Your task to perform on an android device: uninstall "Truecaller" Image 0: 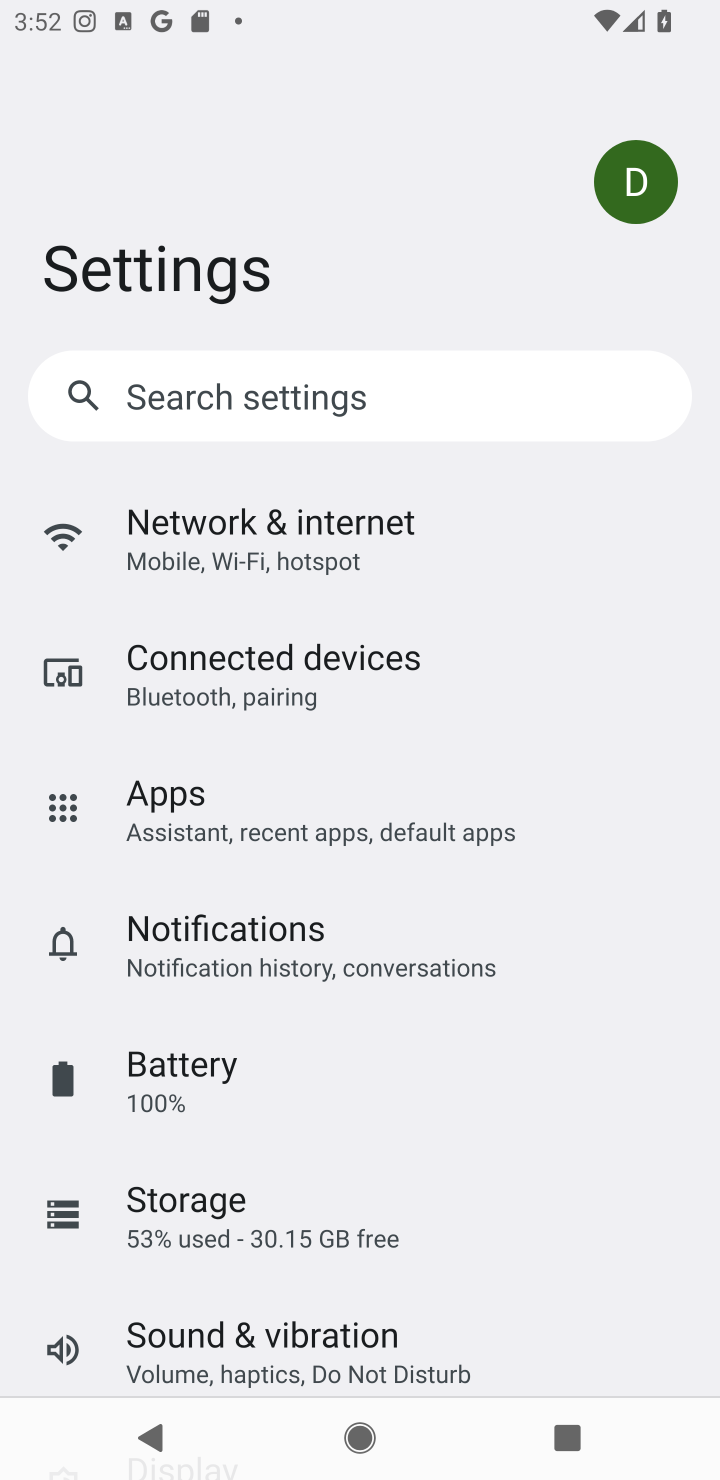
Step 0: press home button
Your task to perform on an android device: uninstall "Truecaller" Image 1: 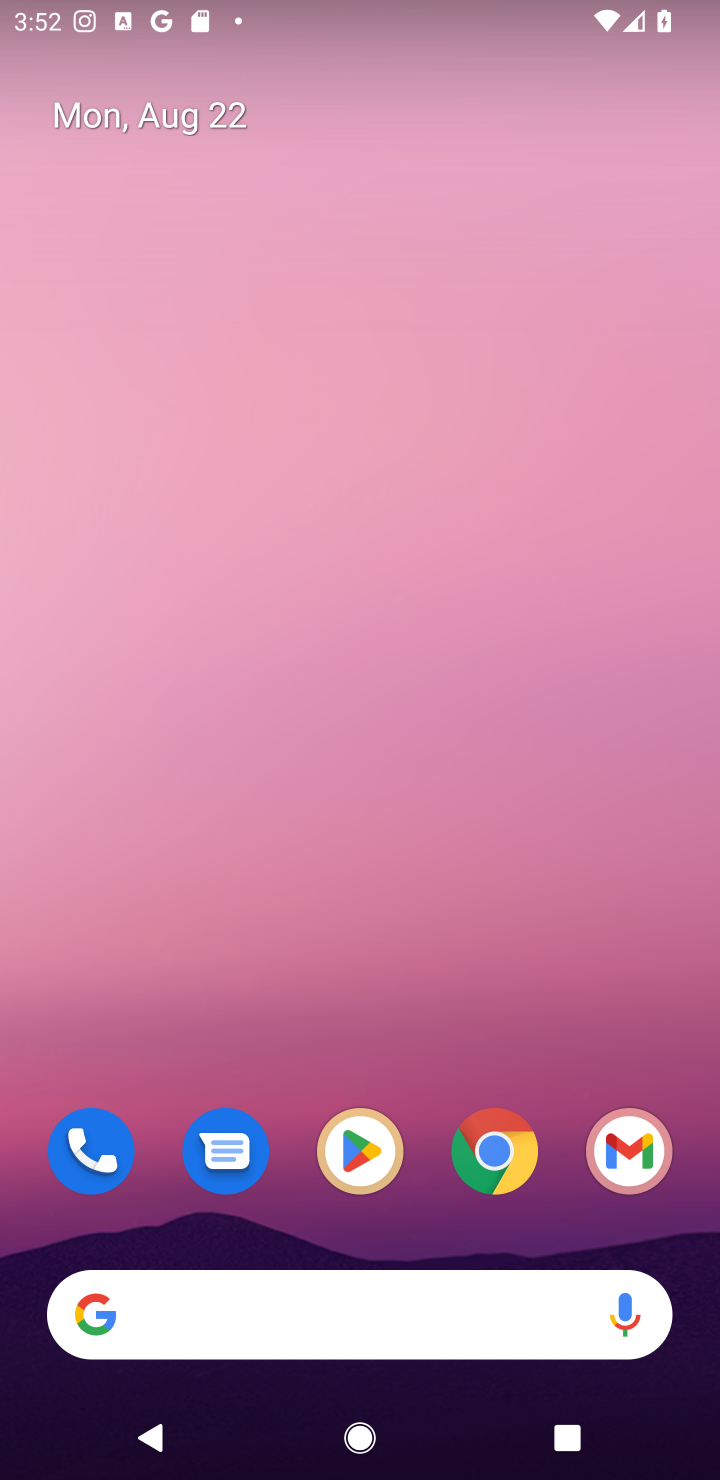
Step 1: click (368, 1150)
Your task to perform on an android device: uninstall "Truecaller" Image 2: 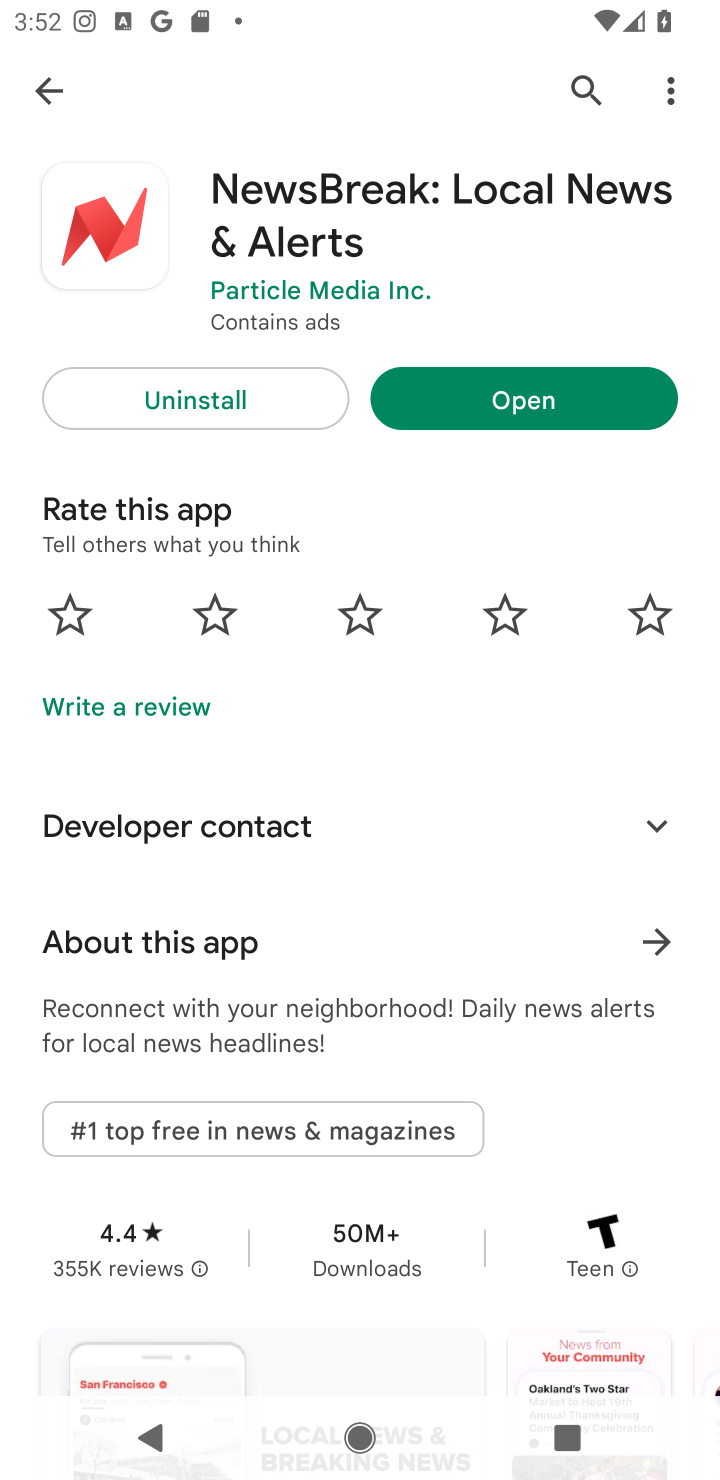
Step 2: click (458, 797)
Your task to perform on an android device: uninstall "Truecaller" Image 3: 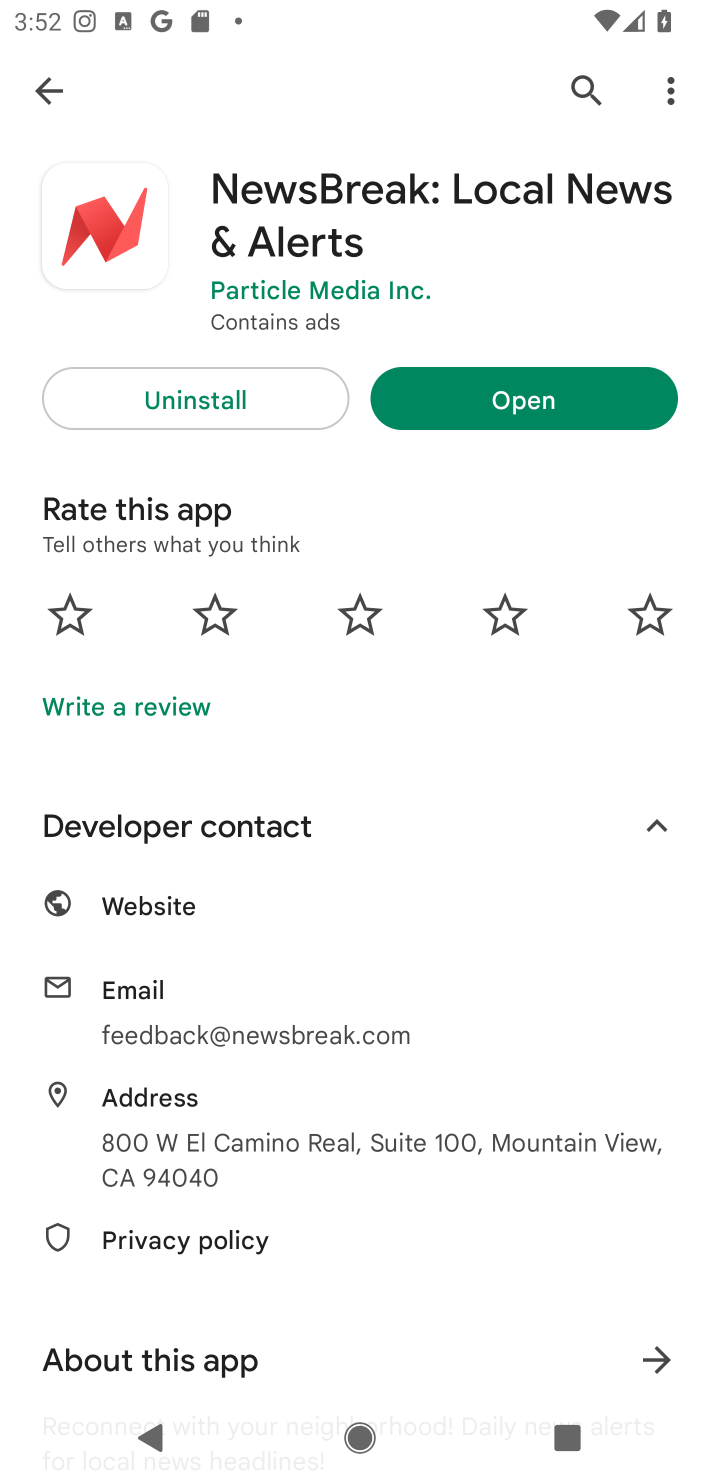
Step 3: press back button
Your task to perform on an android device: uninstall "Truecaller" Image 4: 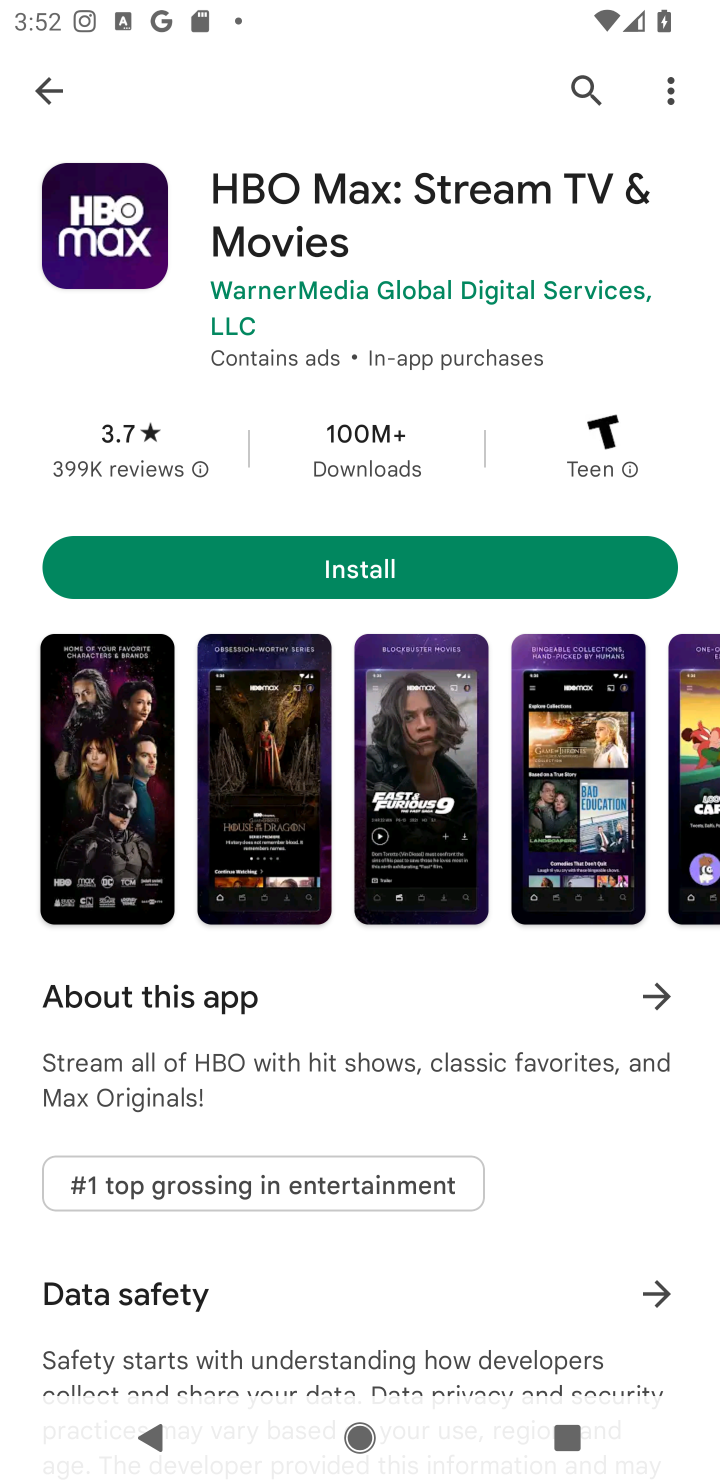
Step 4: press back button
Your task to perform on an android device: uninstall "Truecaller" Image 5: 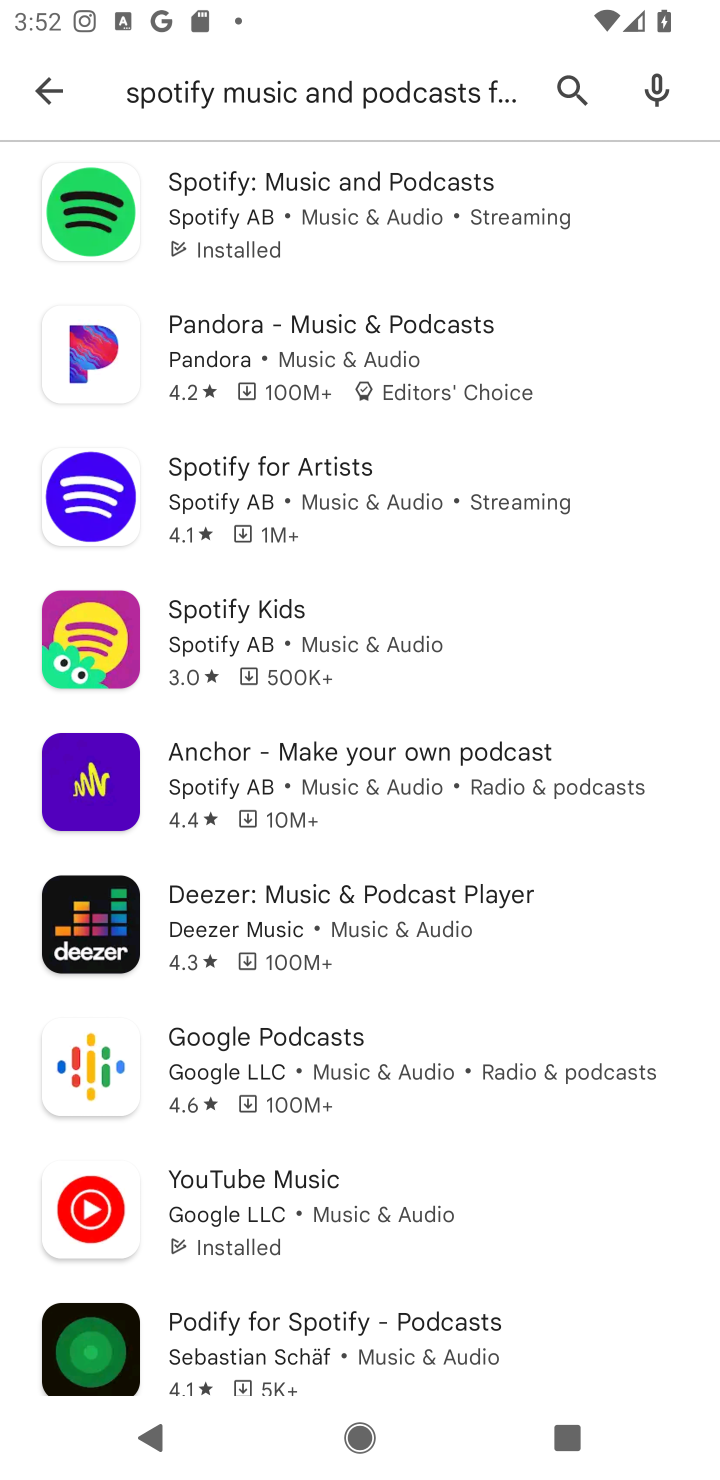
Step 5: press back button
Your task to perform on an android device: uninstall "Truecaller" Image 6: 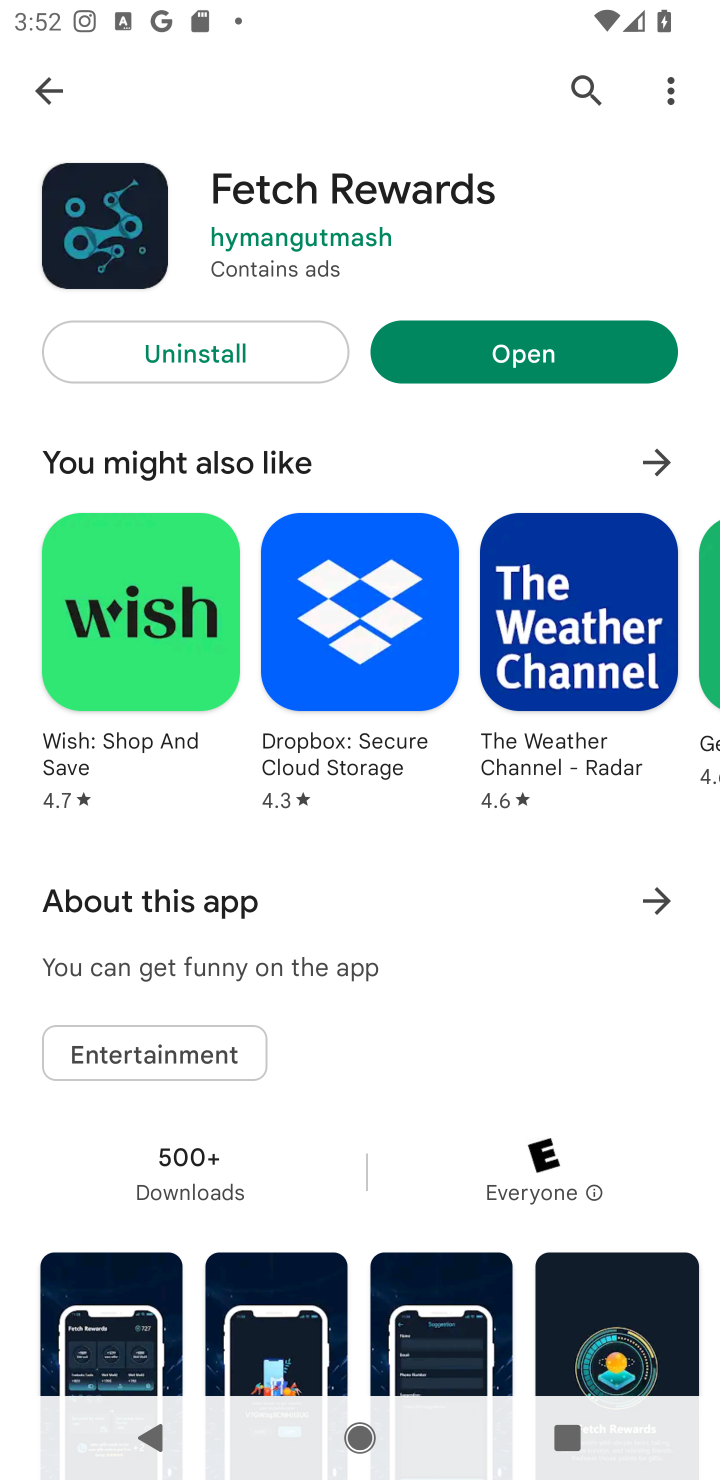
Step 6: click (584, 78)
Your task to perform on an android device: uninstall "Truecaller" Image 7: 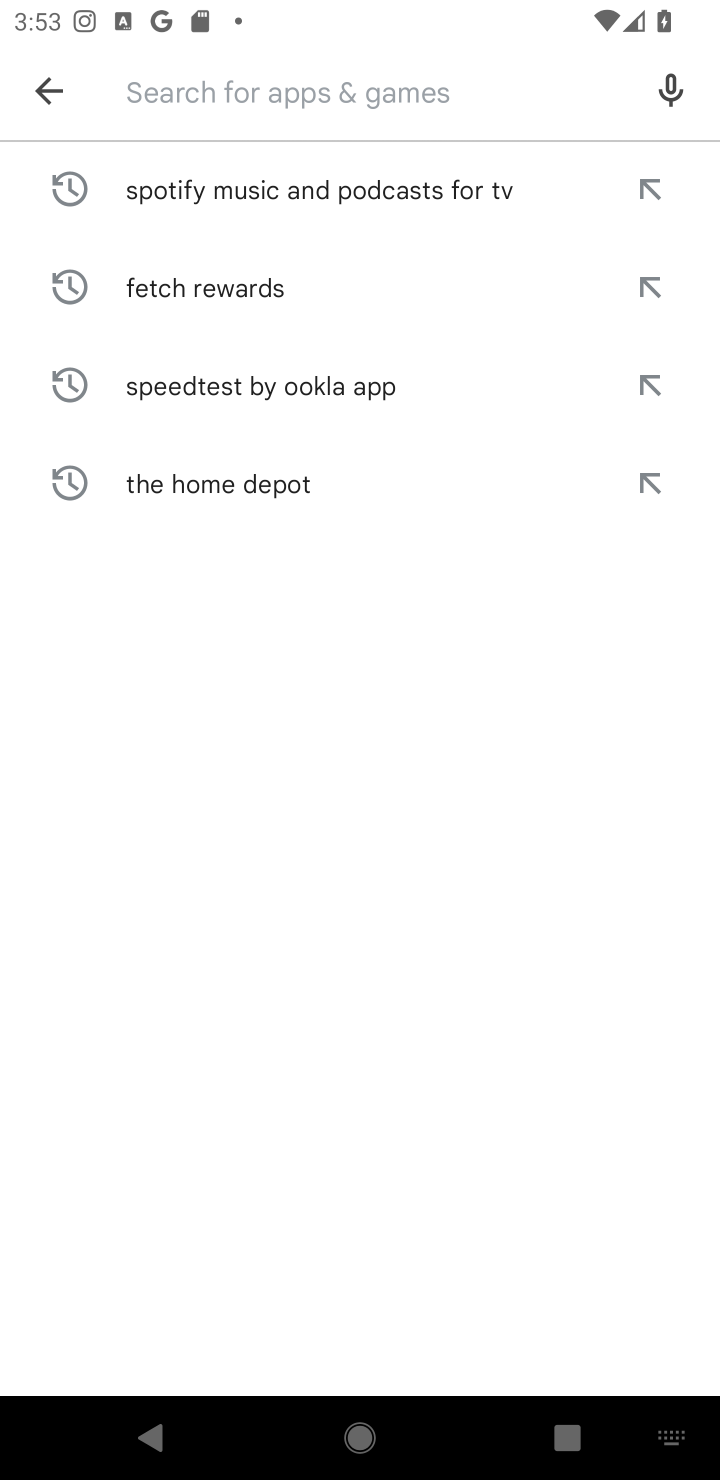
Step 7: type "Truecaller"
Your task to perform on an android device: uninstall "Truecaller" Image 8: 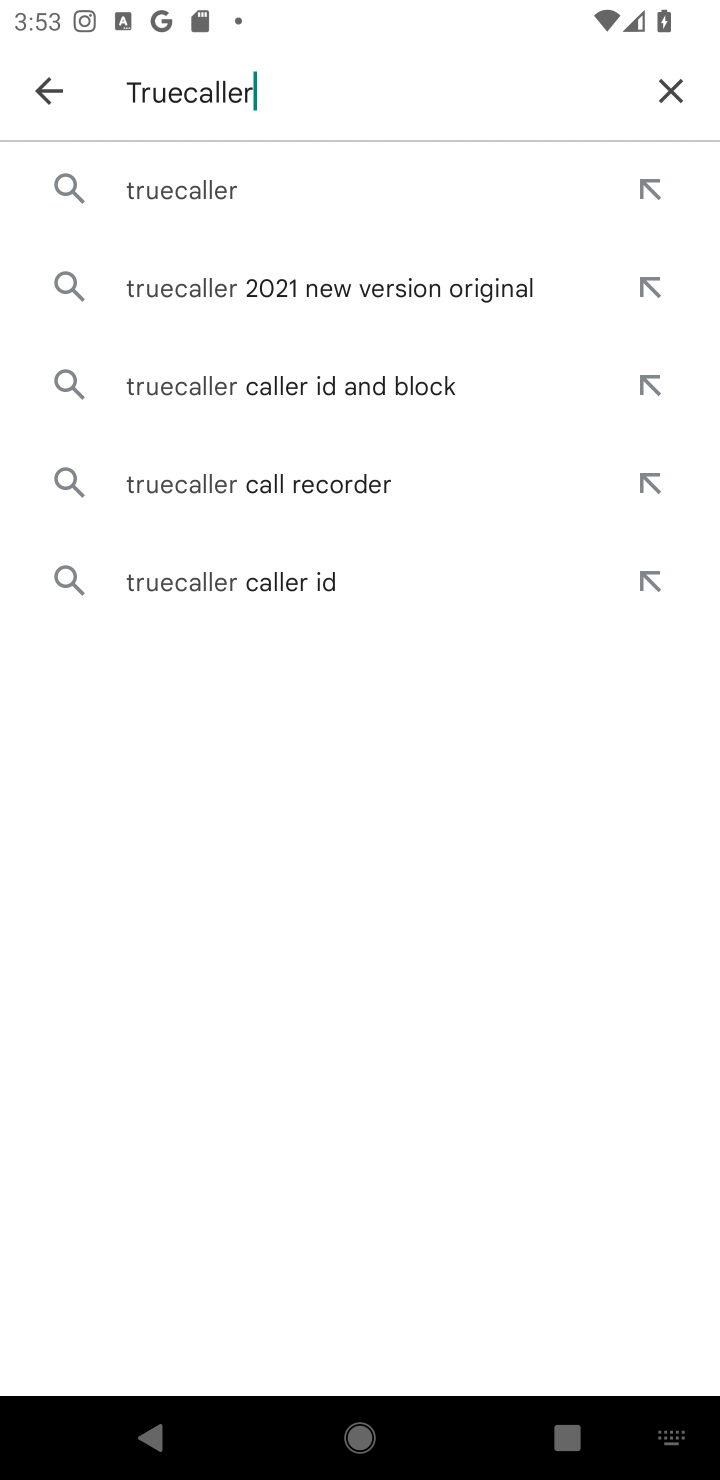
Step 8: click (204, 183)
Your task to perform on an android device: uninstall "Truecaller" Image 9: 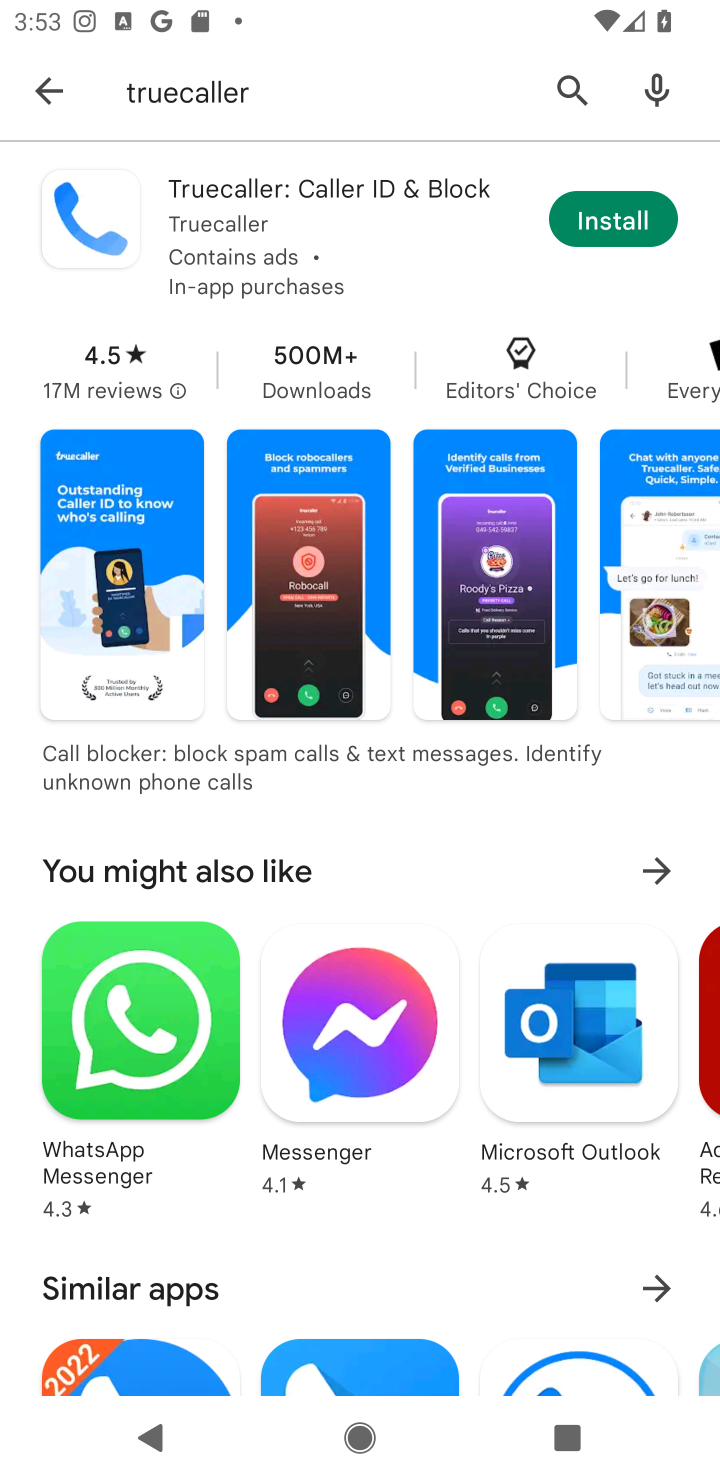
Step 9: task complete